Your task to perform on an android device: Open the phone app and click the voicemail tab. Image 0: 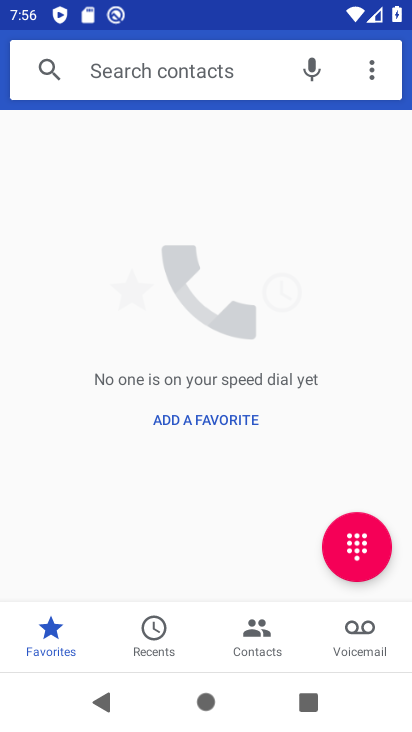
Step 0: click (360, 641)
Your task to perform on an android device: Open the phone app and click the voicemail tab. Image 1: 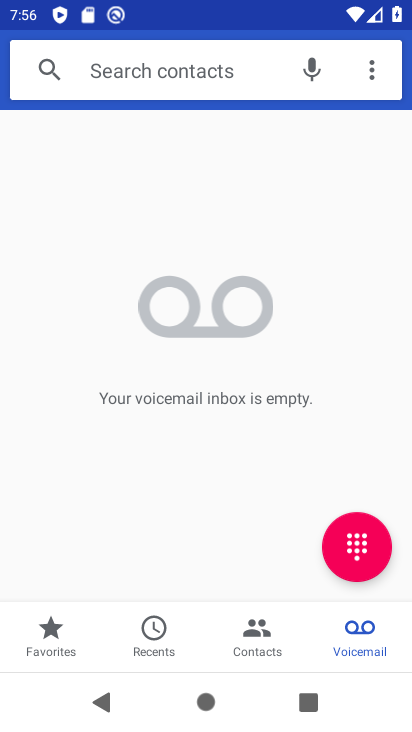
Step 1: click (360, 641)
Your task to perform on an android device: Open the phone app and click the voicemail tab. Image 2: 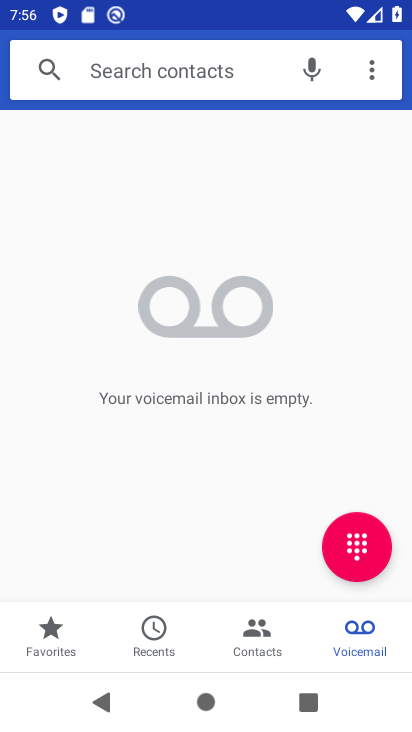
Step 2: click (360, 641)
Your task to perform on an android device: Open the phone app and click the voicemail tab. Image 3: 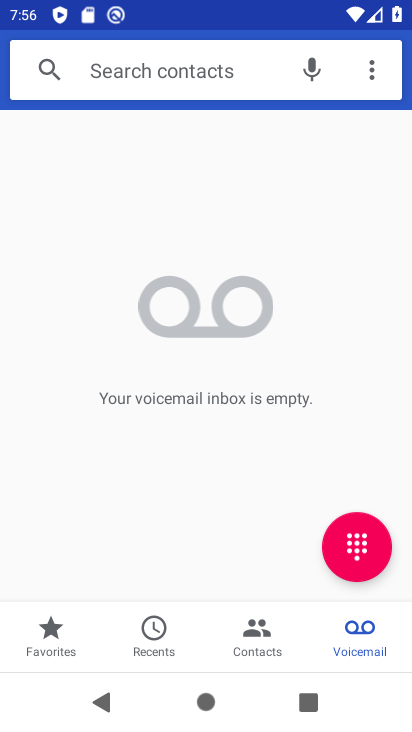
Step 3: task complete